Your task to perform on an android device: see creations saved in the google photos Image 0: 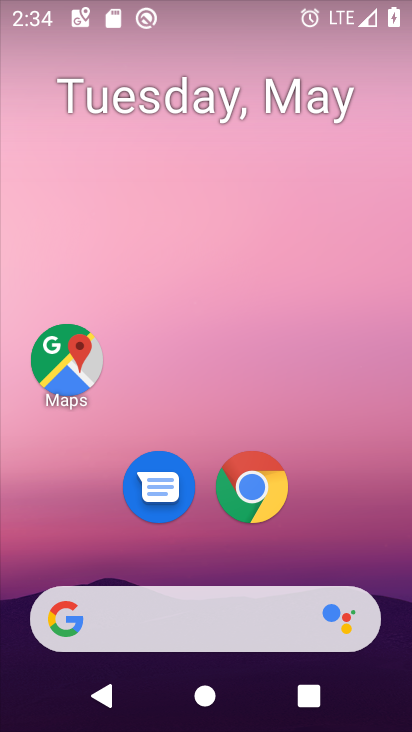
Step 0: press home button
Your task to perform on an android device: see creations saved in the google photos Image 1: 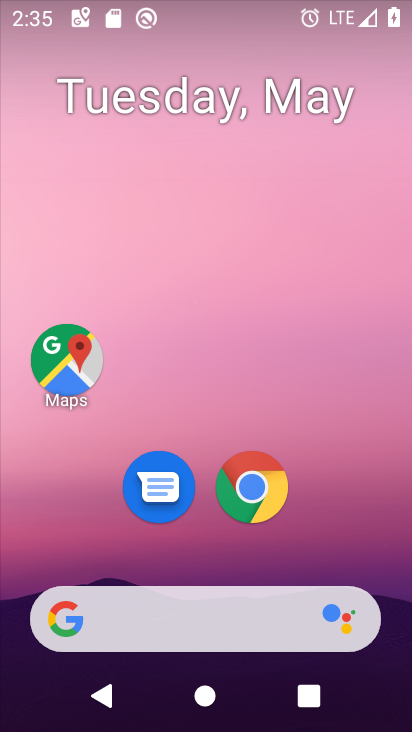
Step 1: drag from (22, 634) to (318, 149)
Your task to perform on an android device: see creations saved in the google photos Image 2: 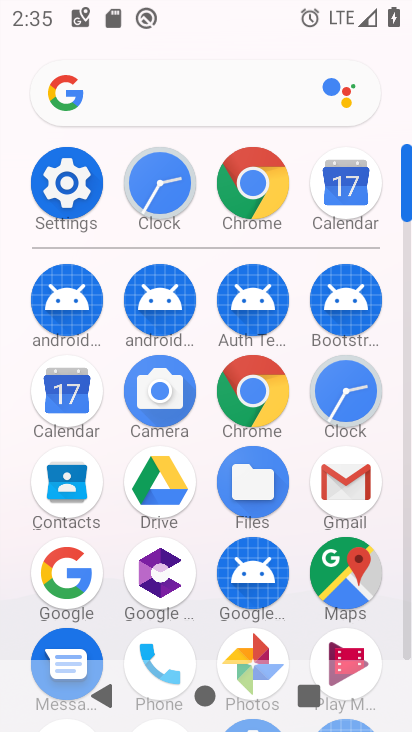
Step 2: click (266, 629)
Your task to perform on an android device: see creations saved in the google photos Image 3: 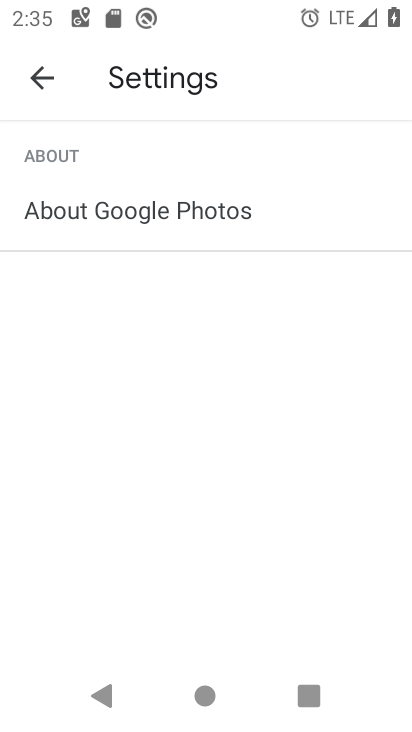
Step 3: press back button
Your task to perform on an android device: see creations saved in the google photos Image 4: 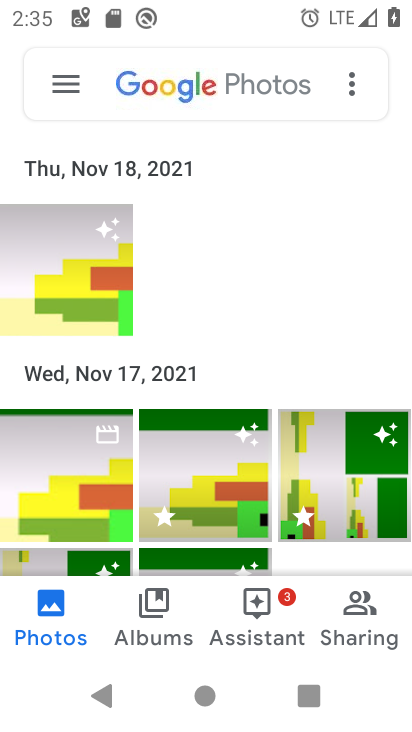
Step 4: click (128, 75)
Your task to perform on an android device: see creations saved in the google photos Image 5: 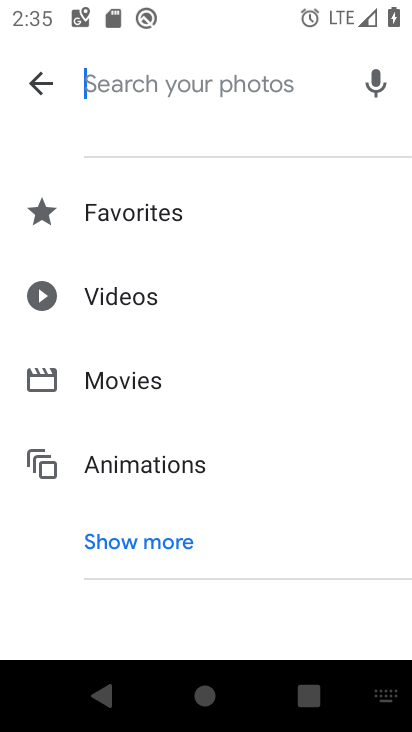
Step 5: click (136, 534)
Your task to perform on an android device: see creations saved in the google photos Image 6: 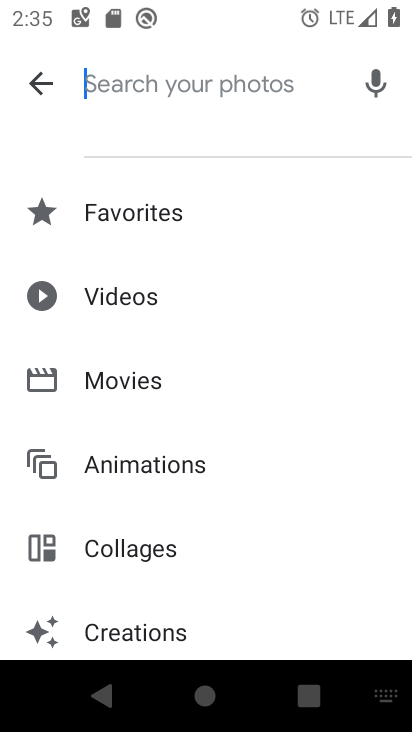
Step 6: click (134, 615)
Your task to perform on an android device: see creations saved in the google photos Image 7: 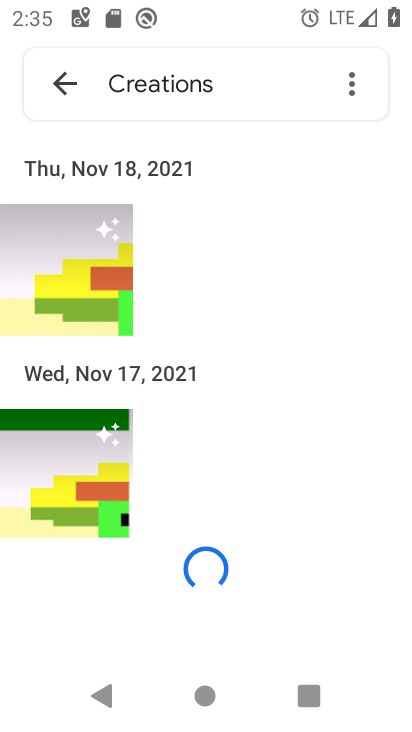
Step 7: task complete